Your task to perform on an android device: star an email in the gmail app Image 0: 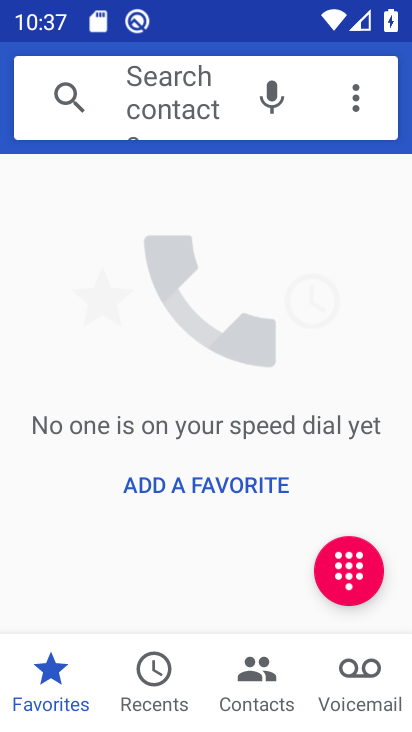
Step 0: press home button
Your task to perform on an android device: star an email in the gmail app Image 1: 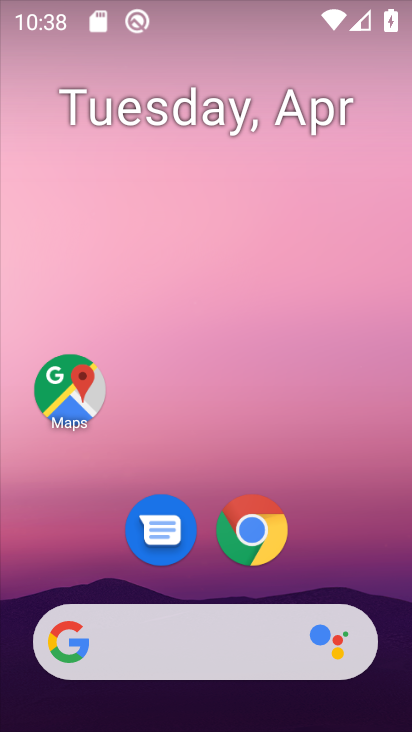
Step 1: drag from (220, 577) to (332, 108)
Your task to perform on an android device: star an email in the gmail app Image 2: 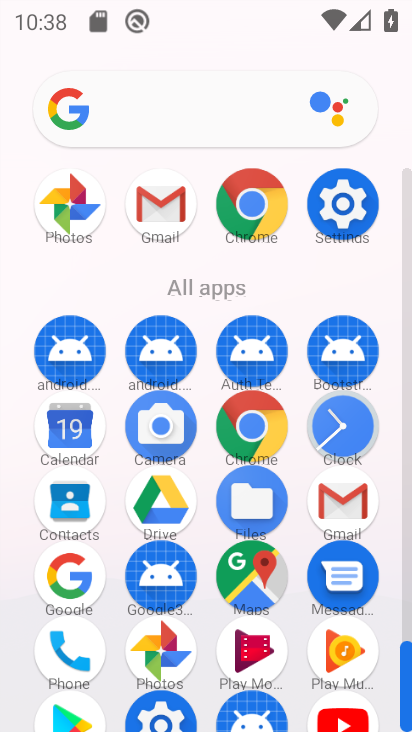
Step 2: click (163, 216)
Your task to perform on an android device: star an email in the gmail app Image 3: 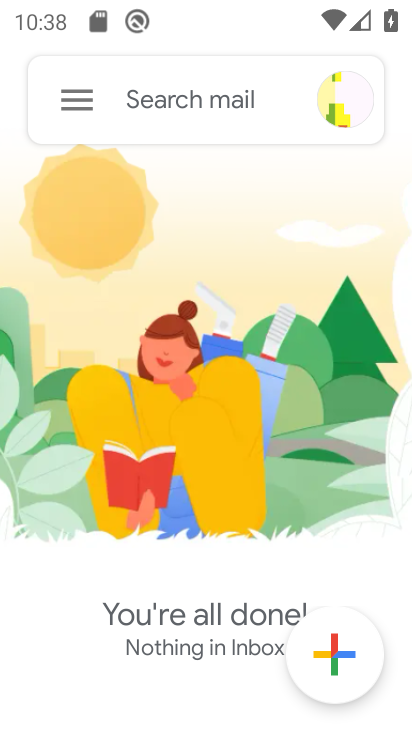
Step 3: task complete